Your task to perform on an android device: turn off sleep mode Image 0: 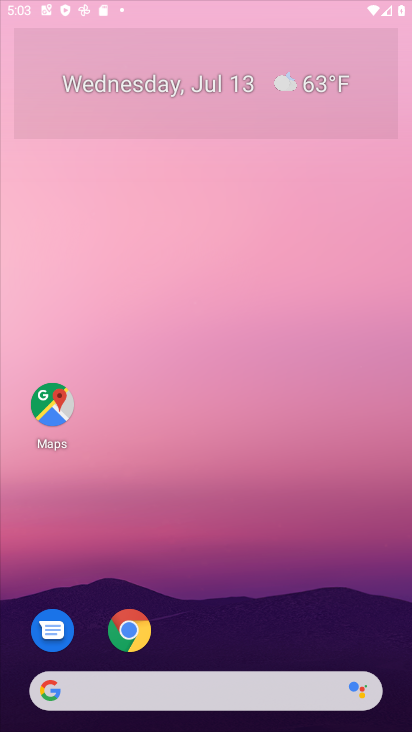
Step 0: press home button
Your task to perform on an android device: turn off sleep mode Image 1: 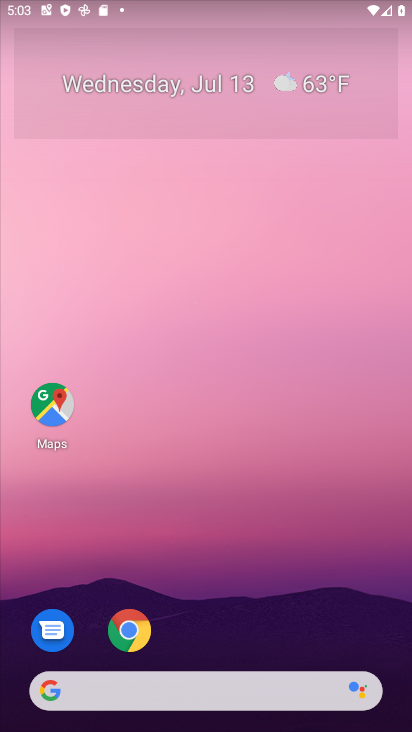
Step 1: drag from (265, 655) to (288, 29)
Your task to perform on an android device: turn off sleep mode Image 2: 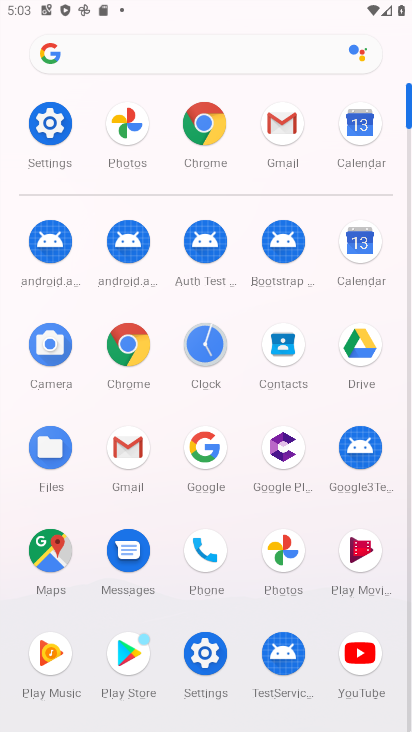
Step 2: click (46, 131)
Your task to perform on an android device: turn off sleep mode Image 3: 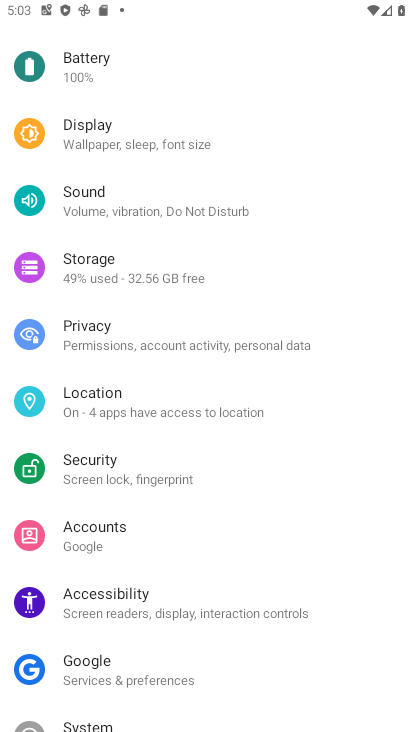
Step 3: click (123, 141)
Your task to perform on an android device: turn off sleep mode Image 4: 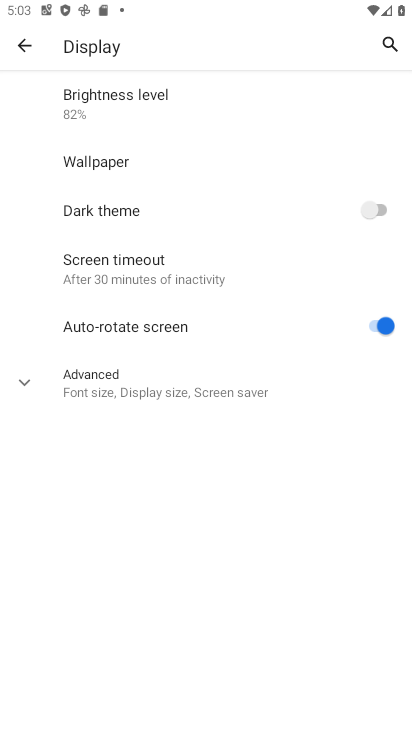
Step 4: task complete